Your task to perform on an android device: Open Android settings Image 0: 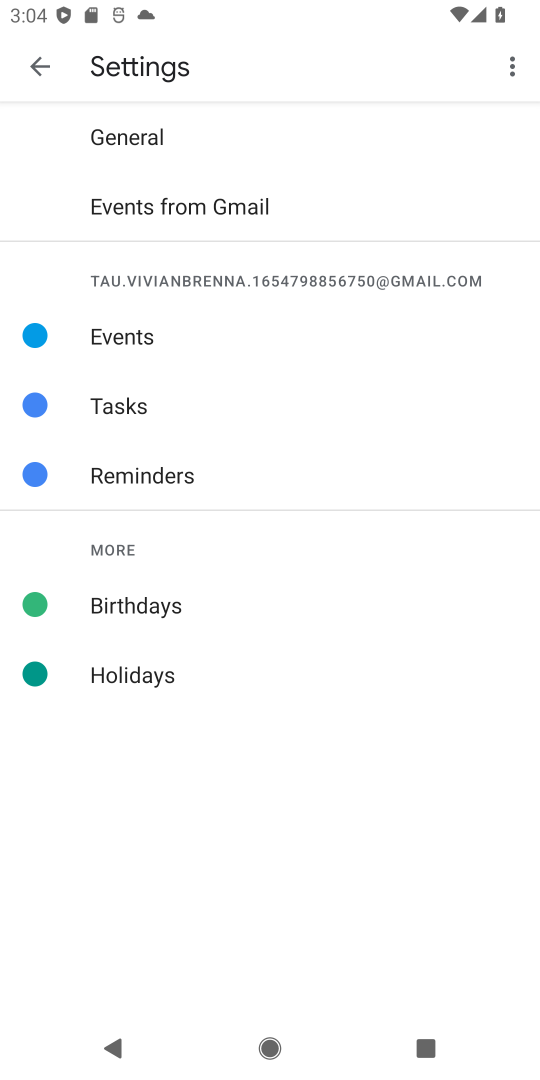
Step 0: press home button
Your task to perform on an android device: Open Android settings Image 1: 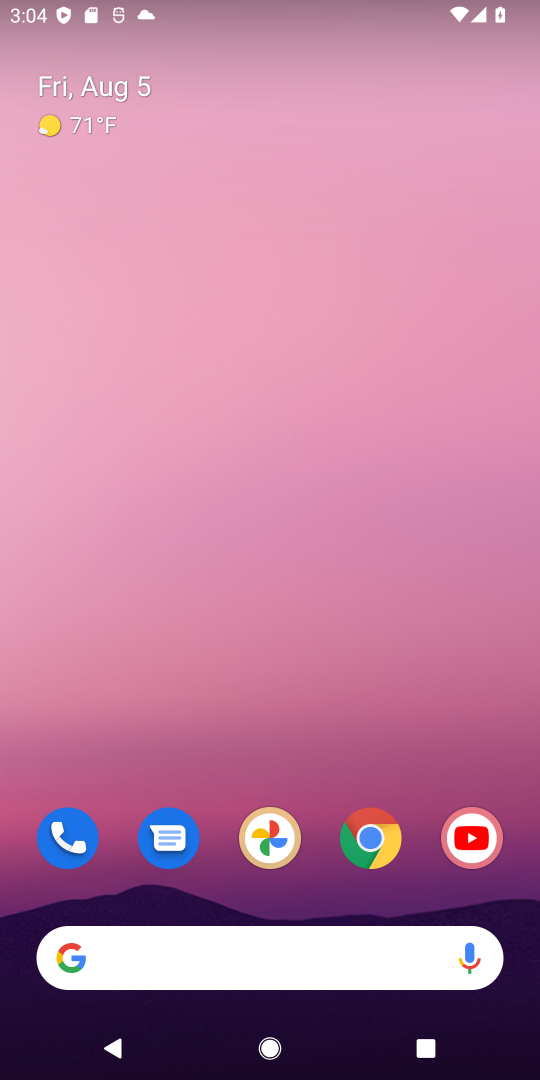
Step 1: drag from (425, 753) to (353, 169)
Your task to perform on an android device: Open Android settings Image 2: 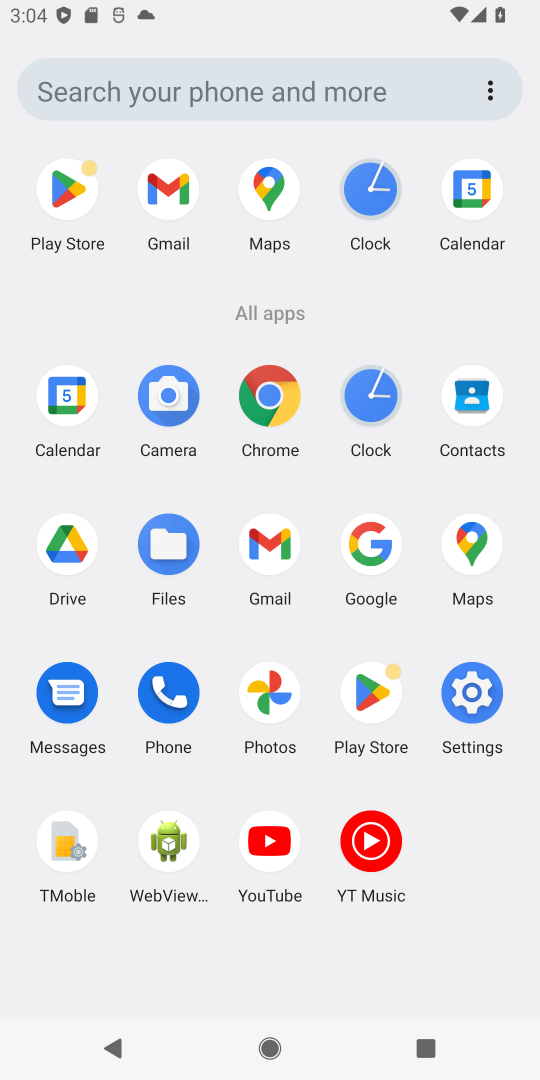
Step 2: click (478, 671)
Your task to perform on an android device: Open Android settings Image 3: 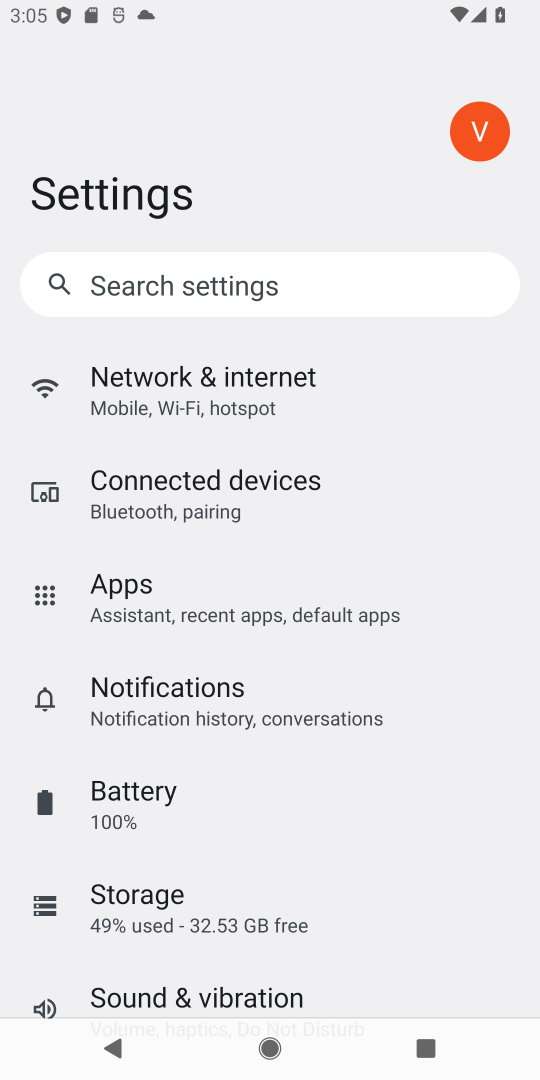
Step 3: task complete